Your task to perform on an android device: check android version Image 0: 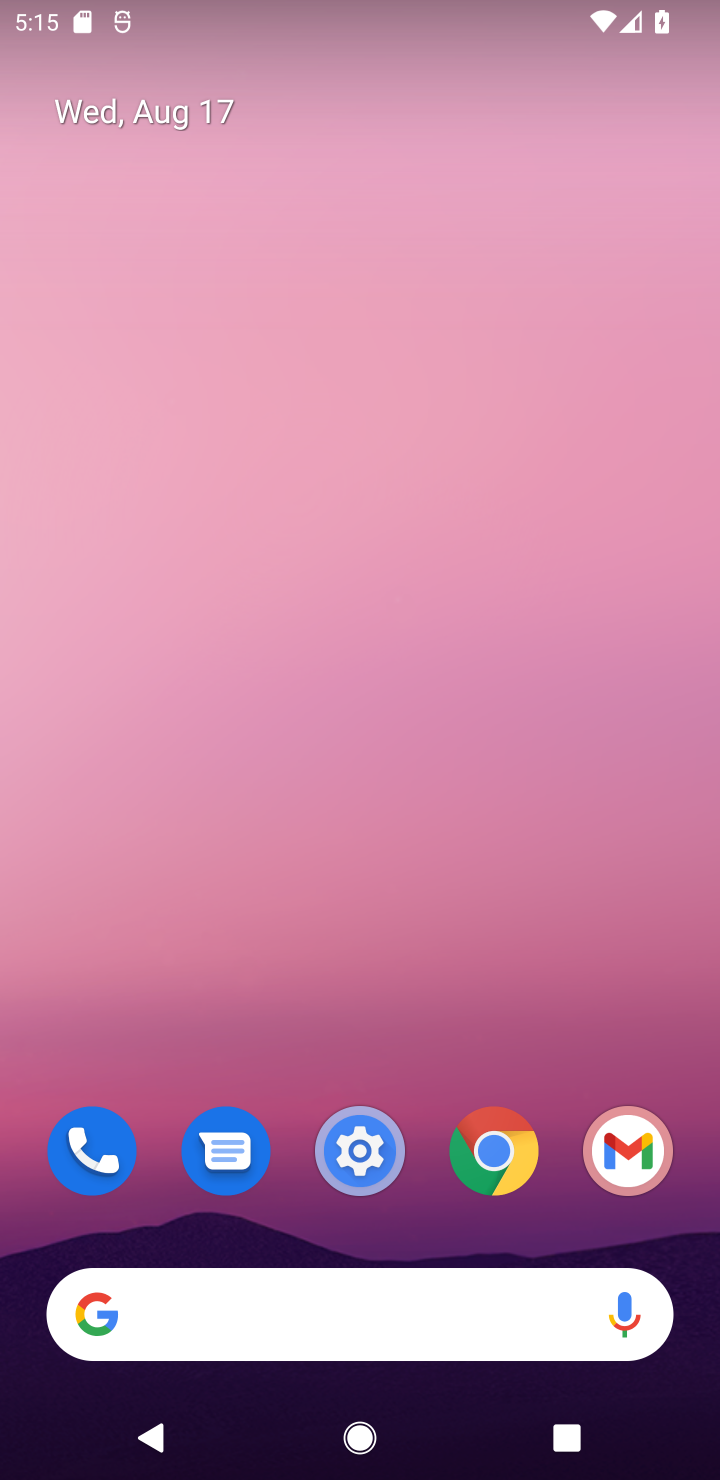
Step 0: click (351, 1183)
Your task to perform on an android device: check android version Image 1: 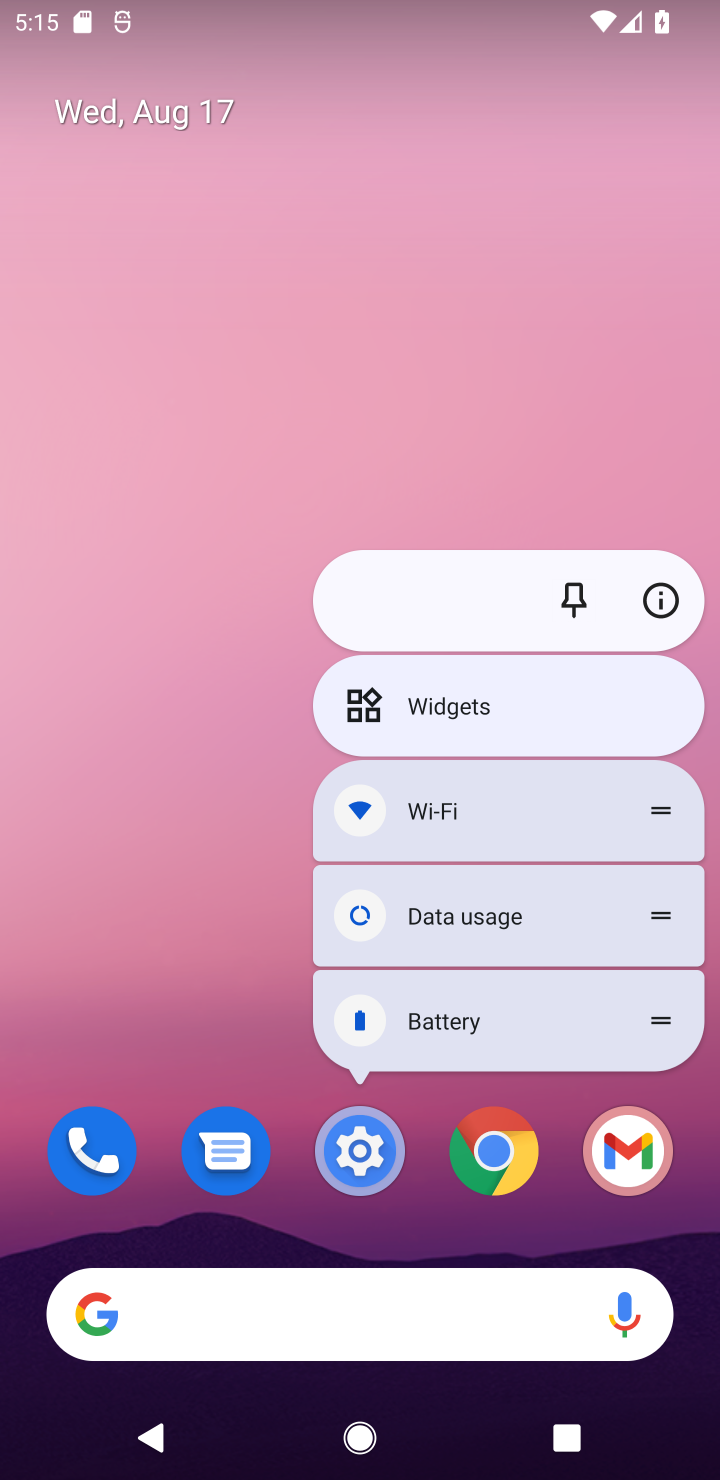
Step 1: click (351, 1183)
Your task to perform on an android device: check android version Image 2: 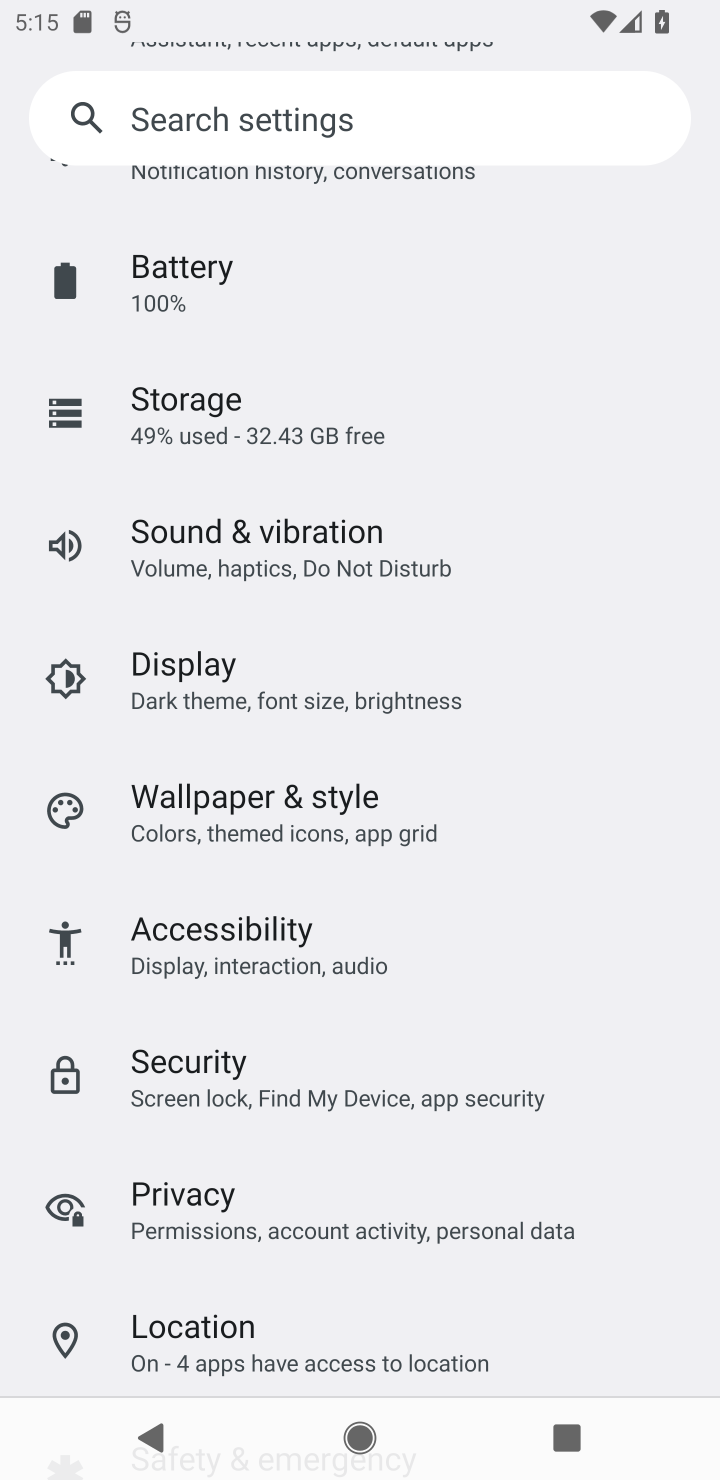
Step 2: drag from (550, 1362) to (419, 297)
Your task to perform on an android device: check android version Image 3: 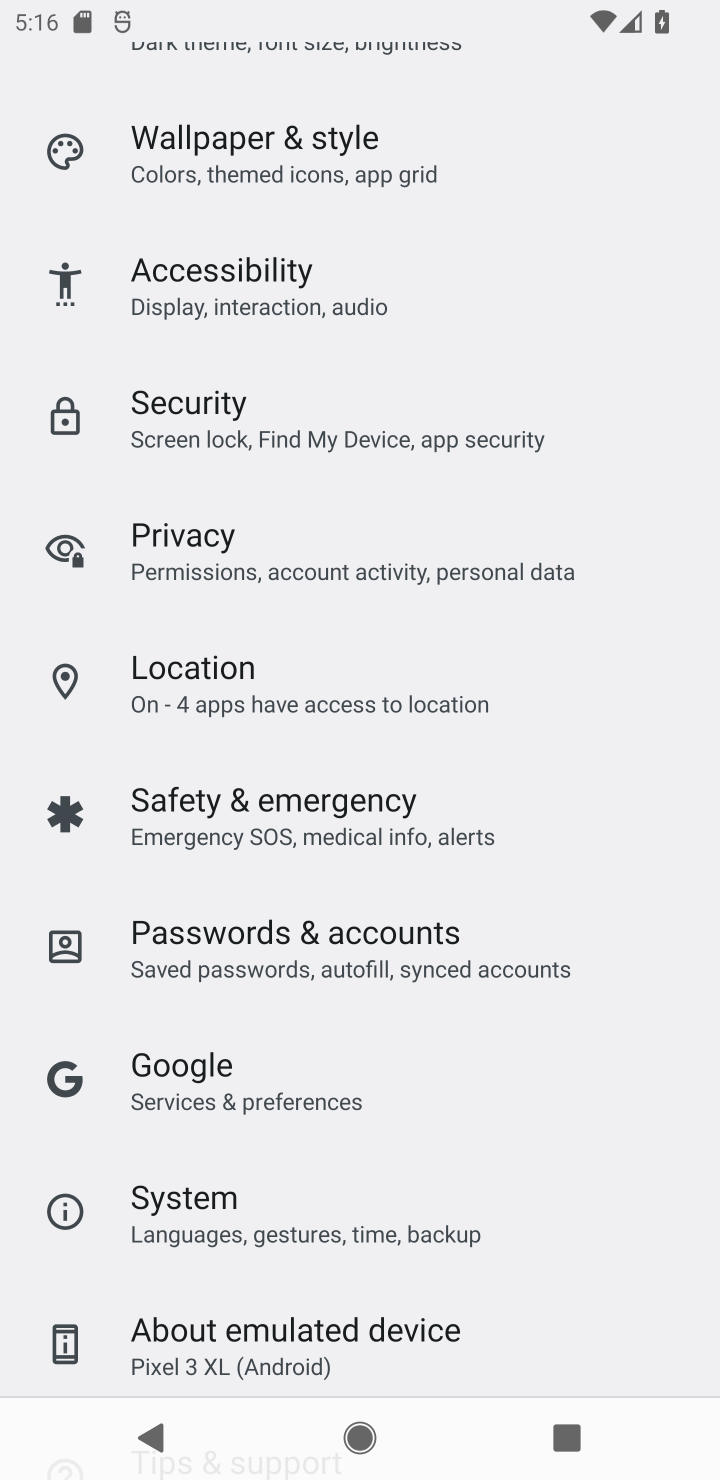
Step 3: drag from (495, 1311) to (383, 736)
Your task to perform on an android device: check android version Image 4: 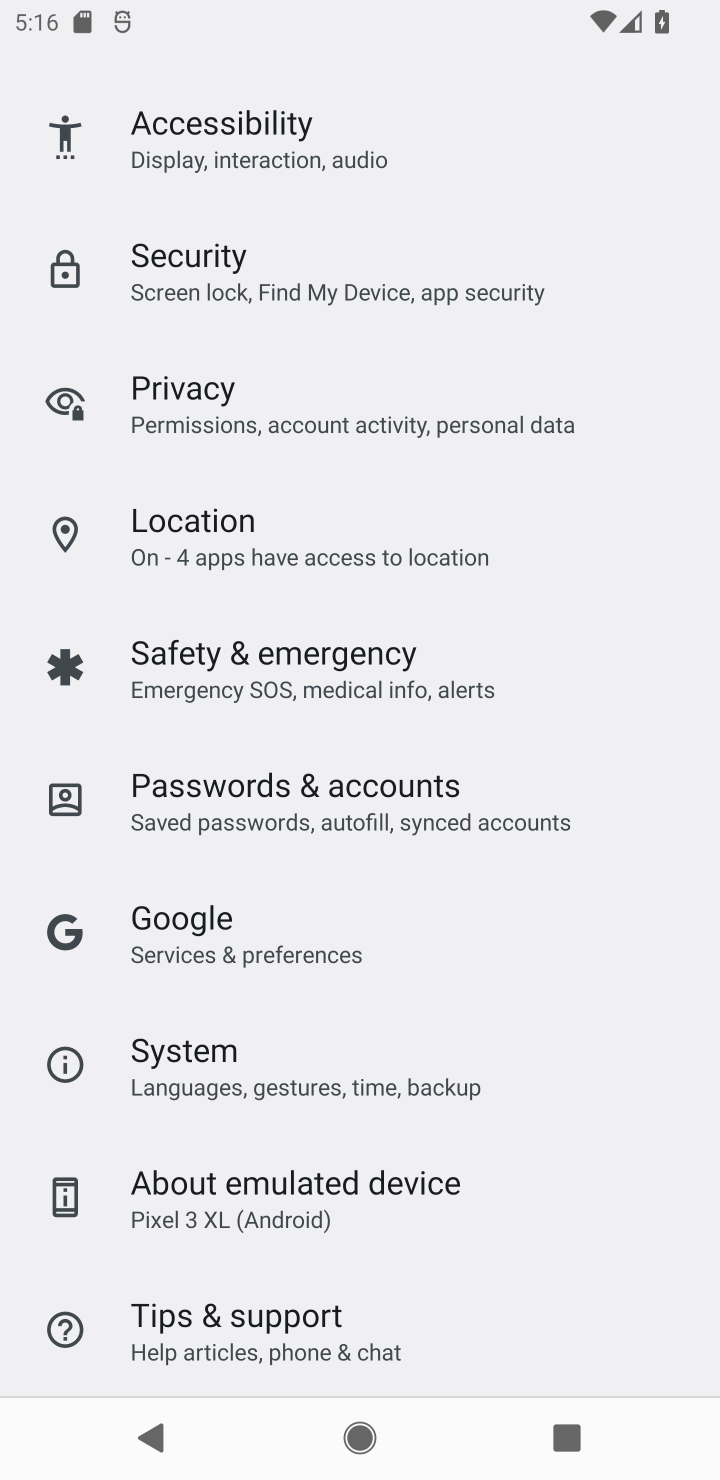
Step 4: drag from (388, 1355) to (386, 863)
Your task to perform on an android device: check android version Image 5: 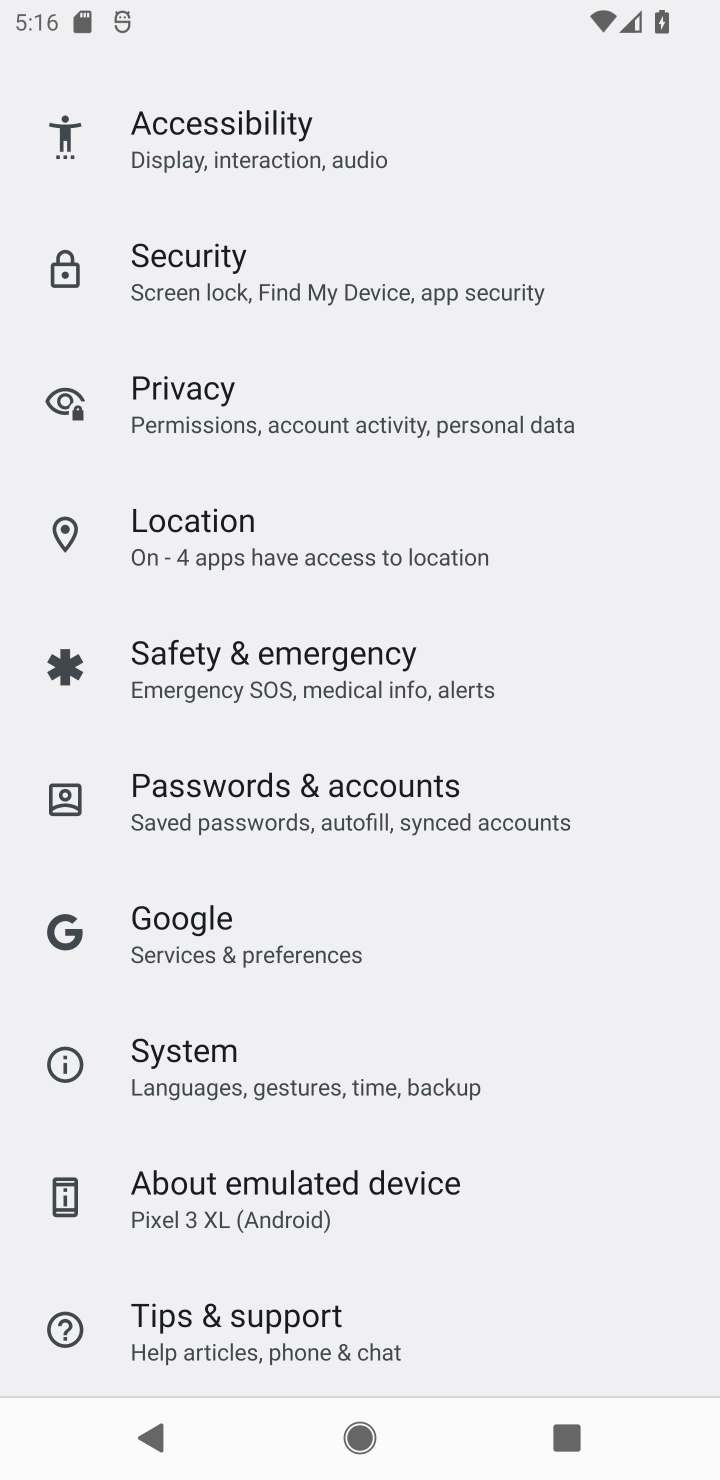
Step 5: click (431, 1170)
Your task to perform on an android device: check android version Image 6: 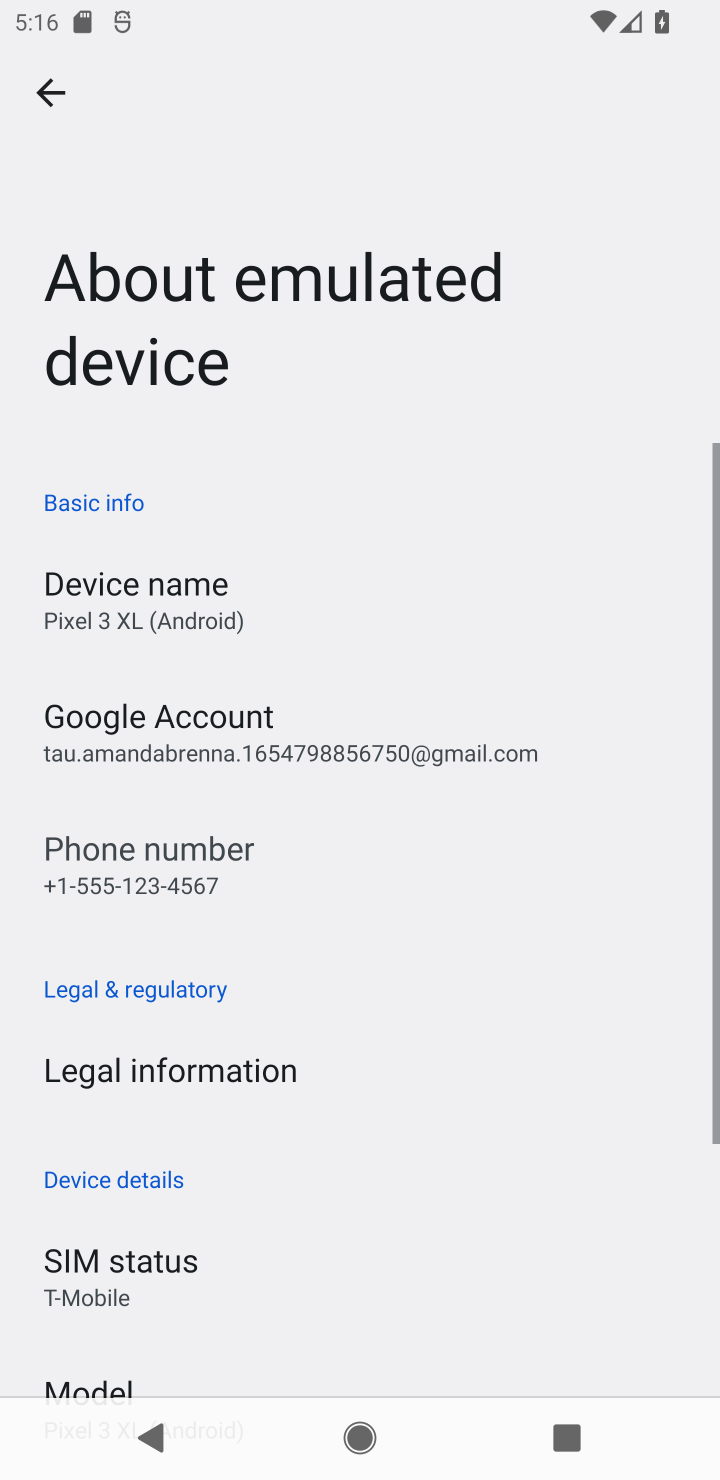
Step 6: task complete